Your task to perform on an android device: open wifi settings Image 0: 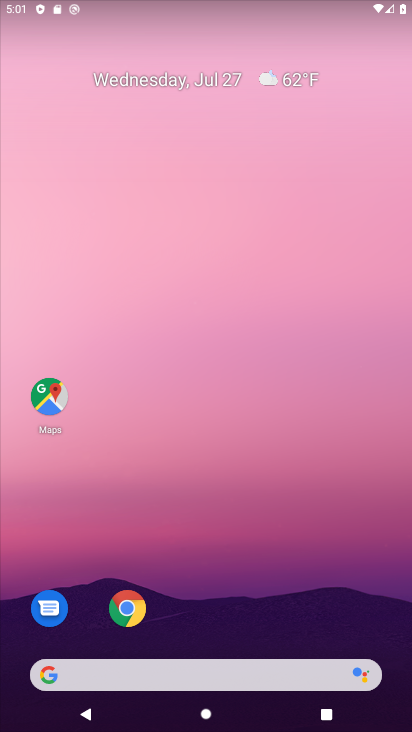
Step 0: drag from (190, 3) to (190, 428)
Your task to perform on an android device: open wifi settings Image 1: 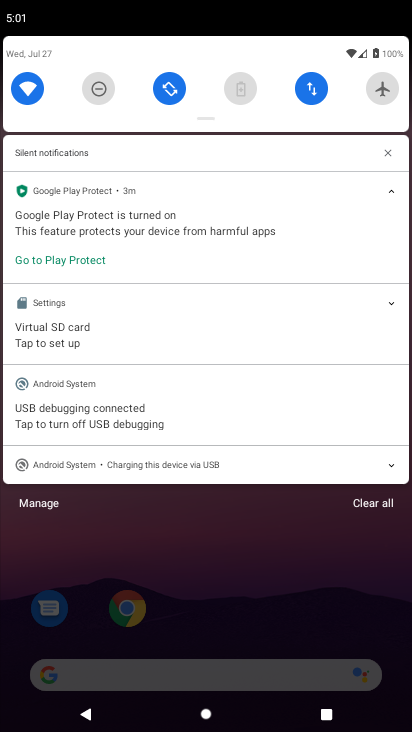
Step 1: click (33, 92)
Your task to perform on an android device: open wifi settings Image 2: 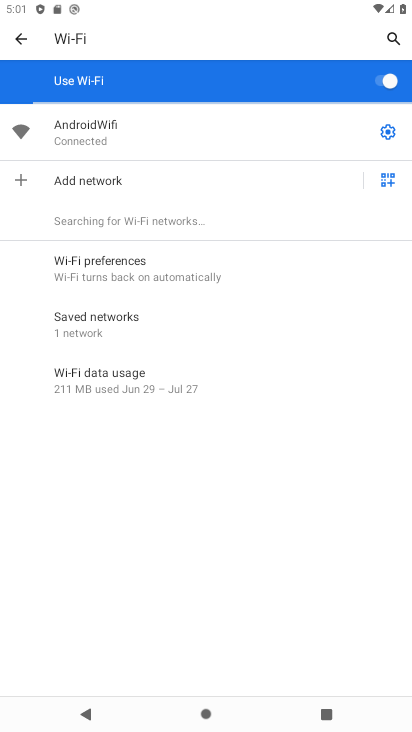
Step 2: task complete